Your task to perform on an android device: Open Yahoo.com Image 0: 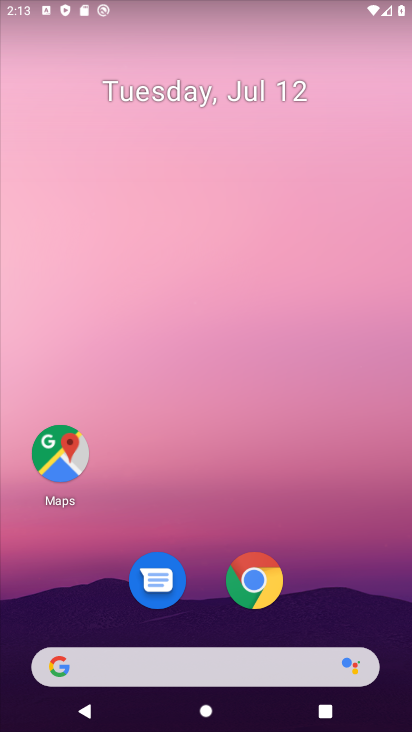
Step 0: click (257, 581)
Your task to perform on an android device: Open Yahoo.com Image 1: 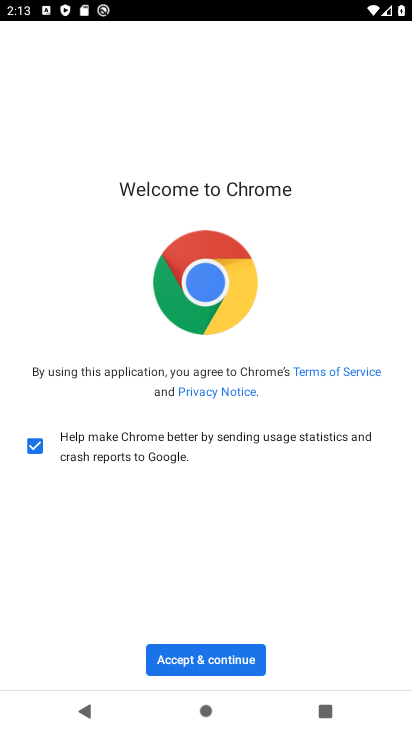
Step 1: click (192, 653)
Your task to perform on an android device: Open Yahoo.com Image 2: 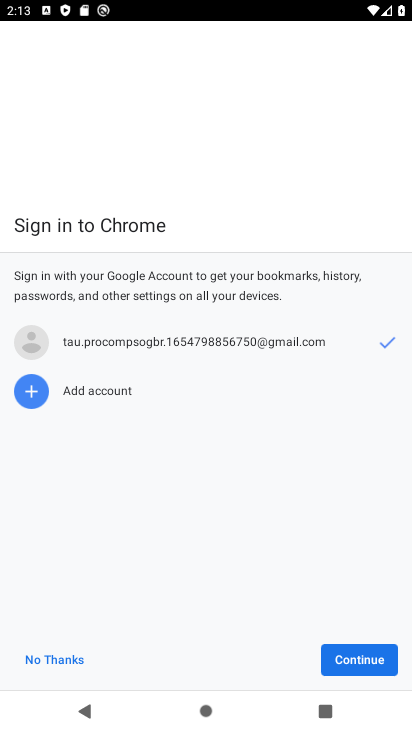
Step 2: click (369, 659)
Your task to perform on an android device: Open Yahoo.com Image 3: 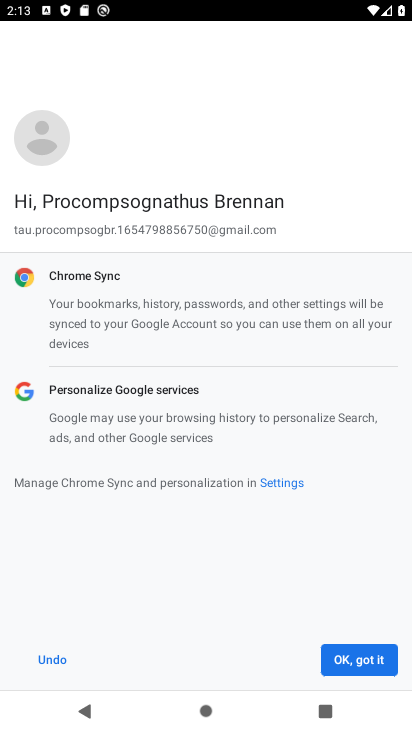
Step 3: click (364, 652)
Your task to perform on an android device: Open Yahoo.com Image 4: 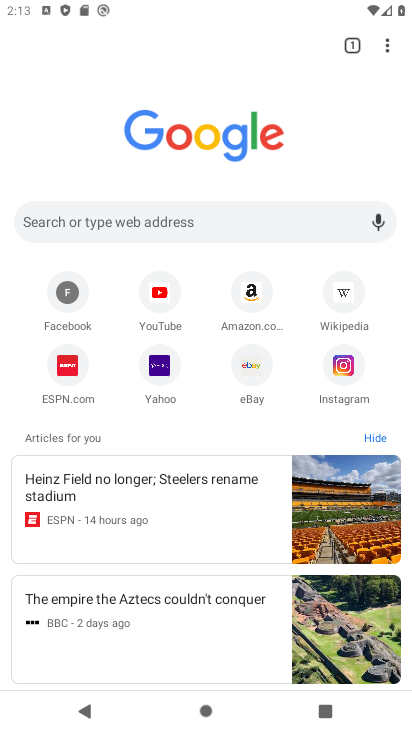
Step 4: click (146, 367)
Your task to perform on an android device: Open Yahoo.com Image 5: 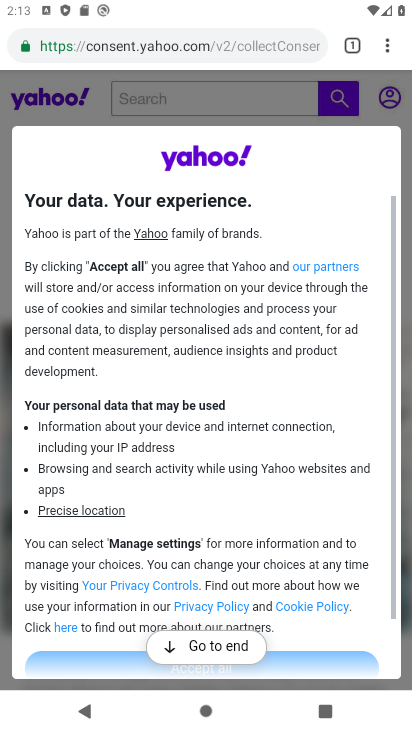
Step 5: task complete